Your task to perform on an android device: When is my next appointment? Image 0: 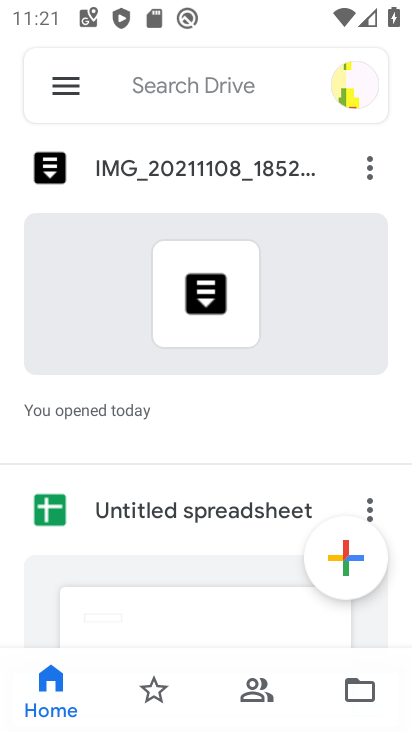
Step 0: press home button
Your task to perform on an android device: When is my next appointment? Image 1: 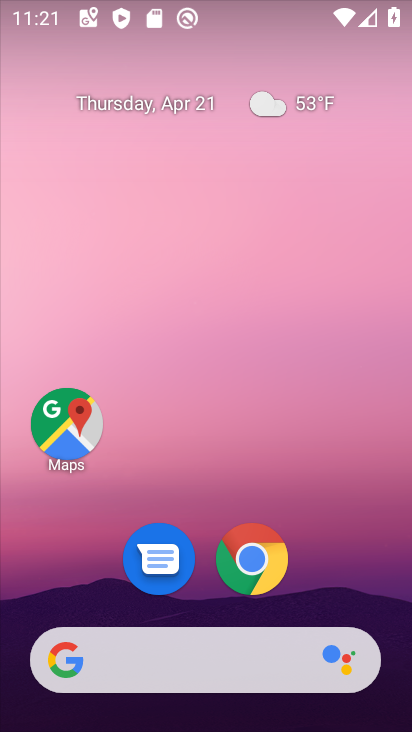
Step 1: drag from (352, 536) to (317, 1)
Your task to perform on an android device: When is my next appointment? Image 2: 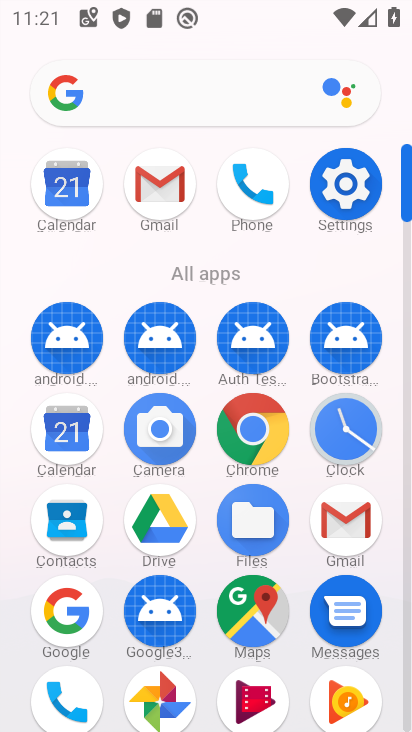
Step 2: click (67, 201)
Your task to perform on an android device: When is my next appointment? Image 3: 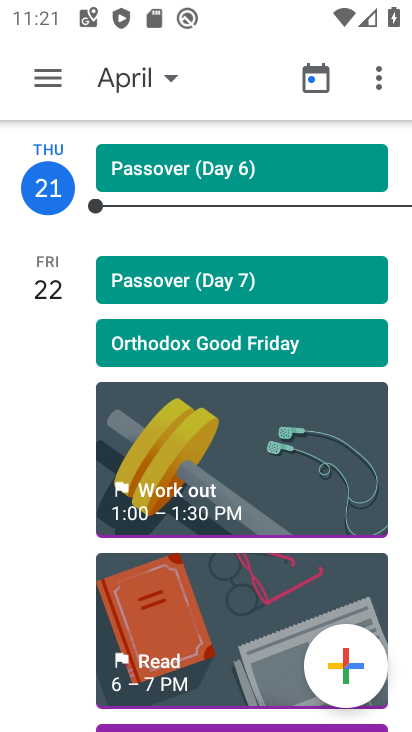
Step 3: drag from (221, 549) to (253, 290)
Your task to perform on an android device: When is my next appointment? Image 4: 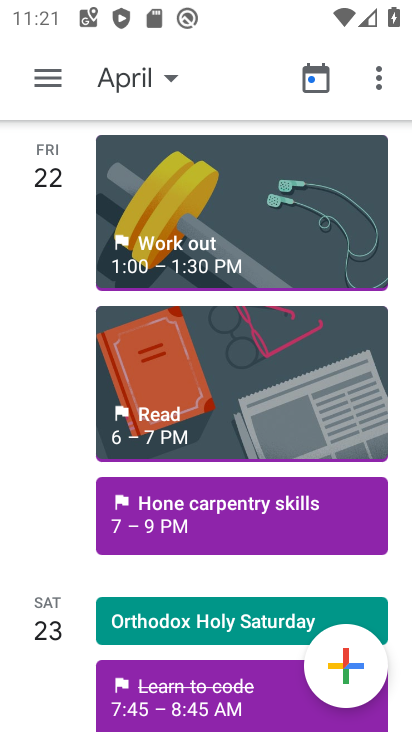
Step 4: click (237, 499)
Your task to perform on an android device: When is my next appointment? Image 5: 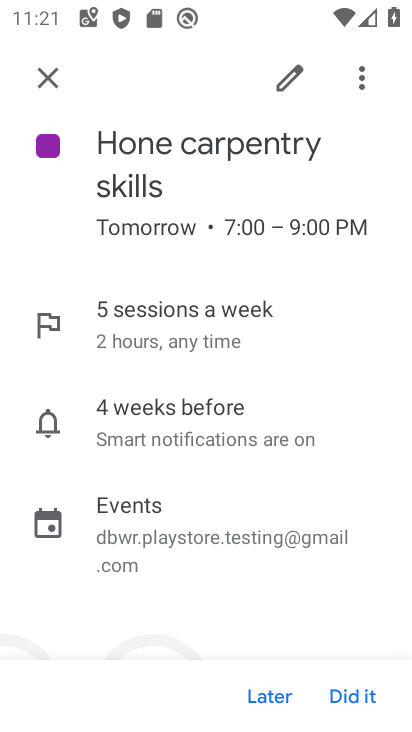
Step 5: task complete